Your task to perform on an android device: Go to Google maps Image 0: 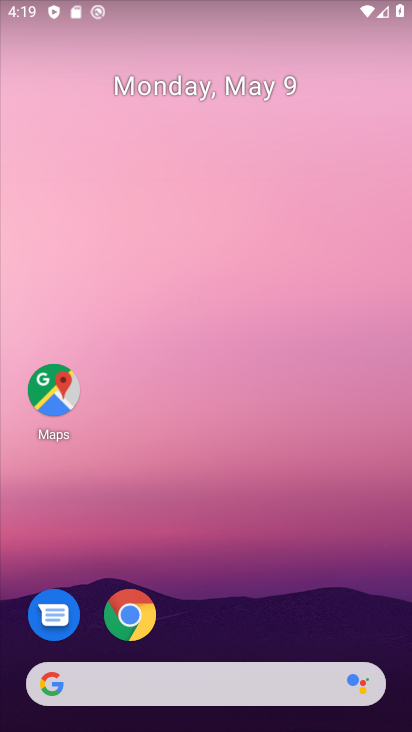
Step 0: click (53, 383)
Your task to perform on an android device: Go to Google maps Image 1: 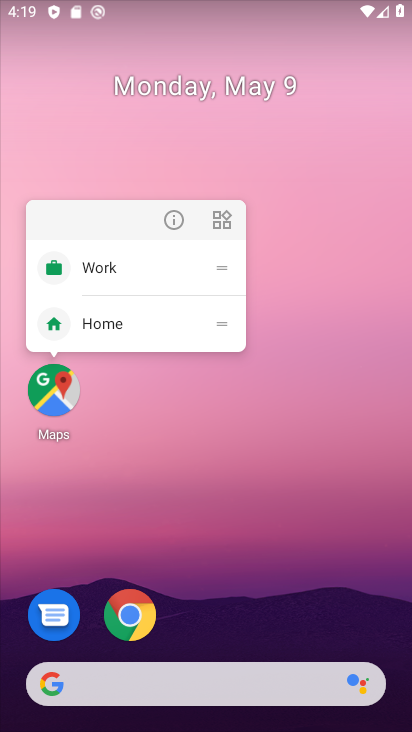
Step 1: click (61, 397)
Your task to perform on an android device: Go to Google maps Image 2: 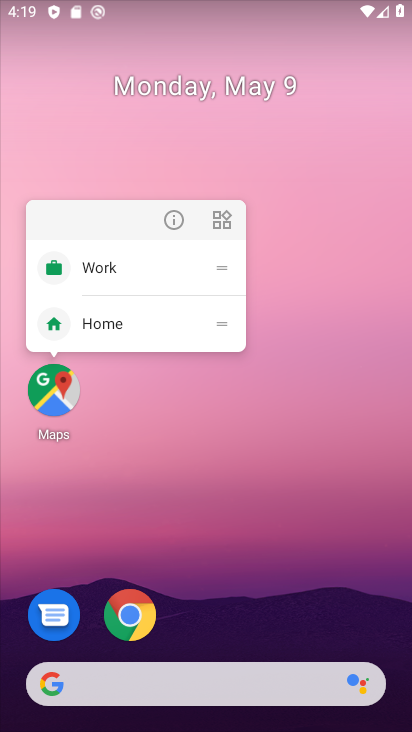
Step 2: click (52, 397)
Your task to perform on an android device: Go to Google maps Image 3: 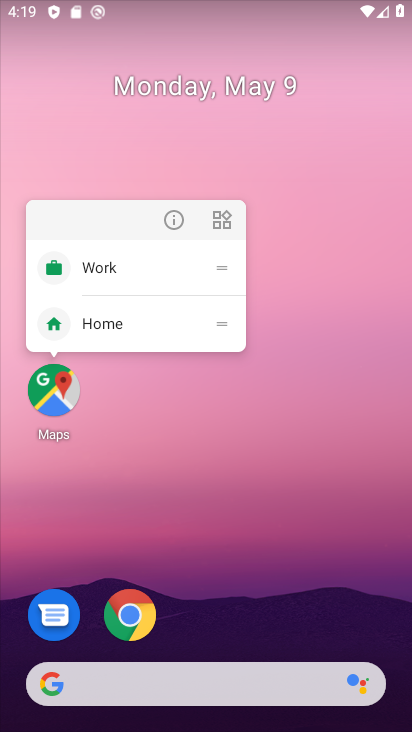
Step 3: click (51, 404)
Your task to perform on an android device: Go to Google maps Image 4: 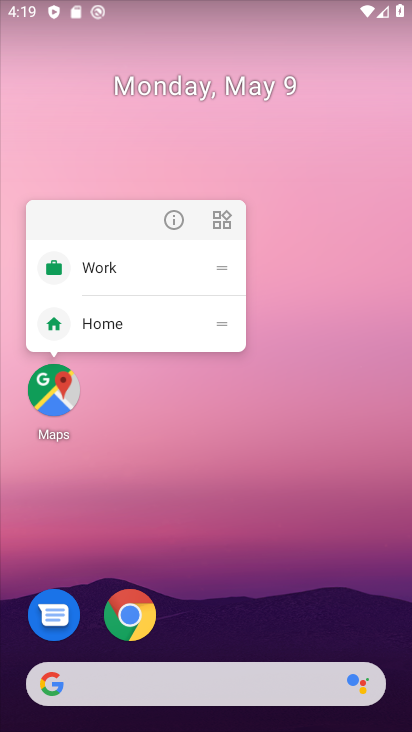
Step 4: click (57, 410)
Your task to perform on an android device: Go to Google maps Image 5: 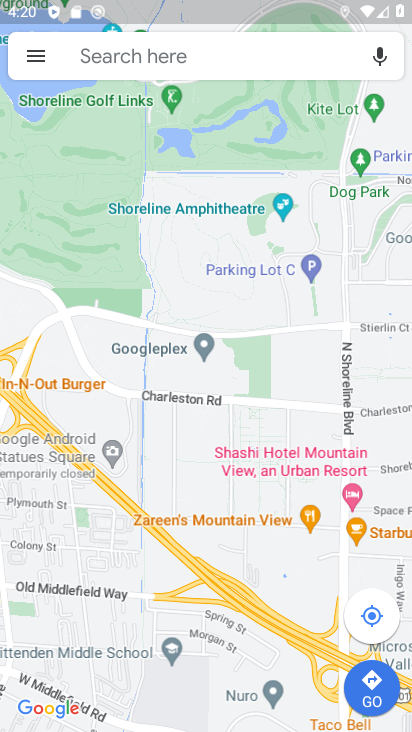
Step 5: task complete